Your task to perform on an android device: stop showing notifications on the lock screen Image 0: 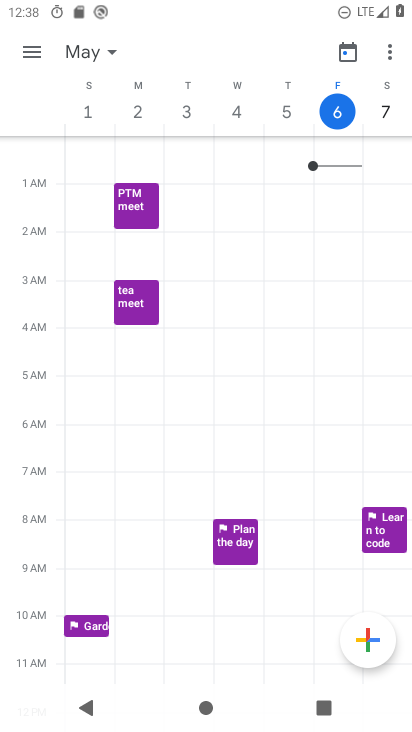
Step 0: press home button
Your task to perform on an android device: stop showing notifications on the lock screen Image 1: 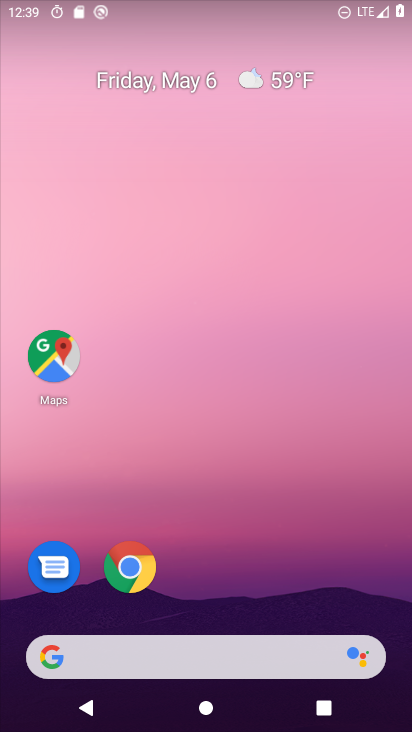
Step 1: drag from (344, 607) to (325, 8)
Your task to perform on an android device: stop showing notifications on the lock screen Image 2: 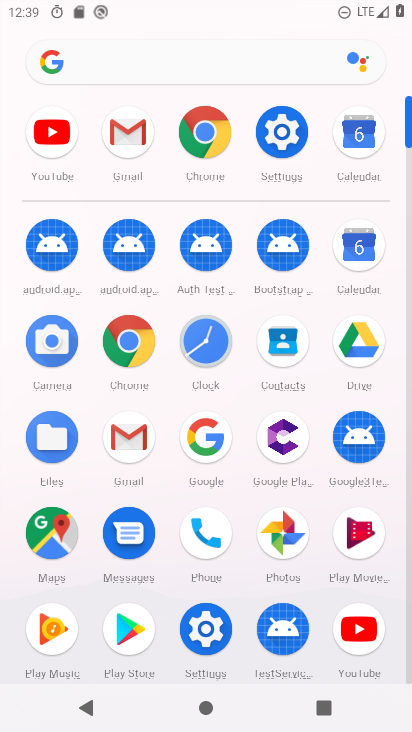
Step 2: click (283, 139)
Your task to perform on an android device: stop showing notifications on the lock screen Image 3: 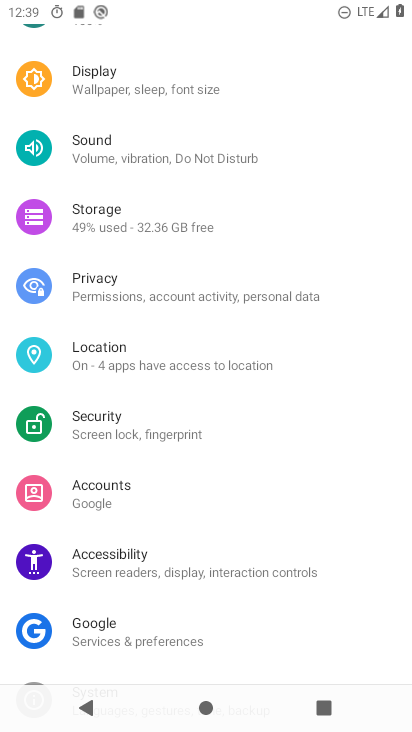
Step 3: drag from (323, 158) to (332, 322)
Your task to perform on an android device: stop showing notifications on the lock screen Image 4: 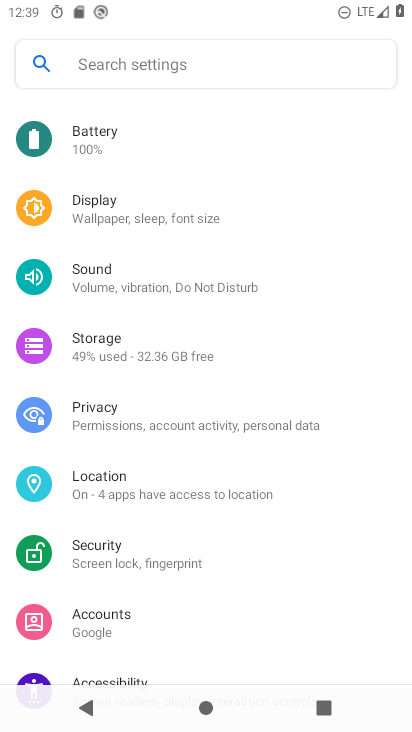
Step 4: drag from (323, 141) to (298, 427)
Your task to perform on an android device: stop showing notifications on the lock screen Image 5: 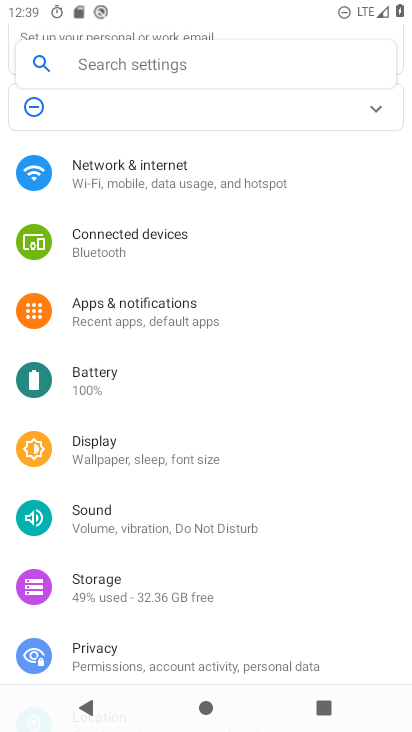
Step 5: click (118, 312)
Your task to perform on an android device: stop showing notifications on the lock screen Image 6: 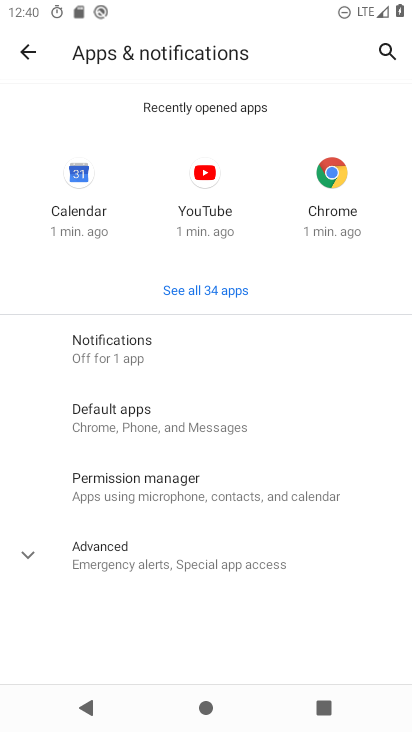
Step 6: click (121, 352)
Your task to perform on an android device: stop showing notifications on the lock screen Image 7: 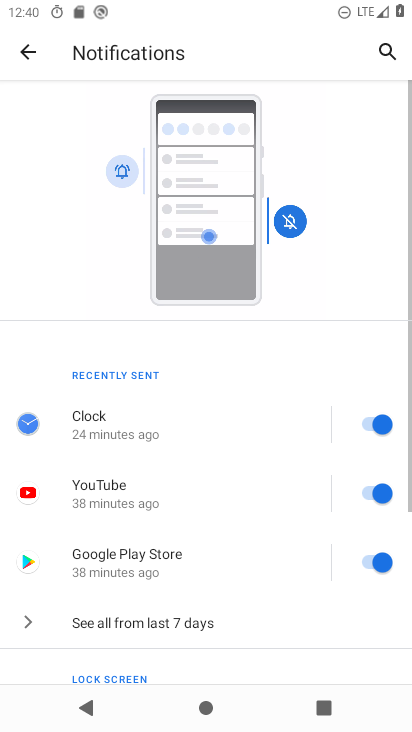
Step 7: drag from (174, 610) to (180, 251)
Your task to perform on an android device: stop showing notifications on the lock screen Image 8: 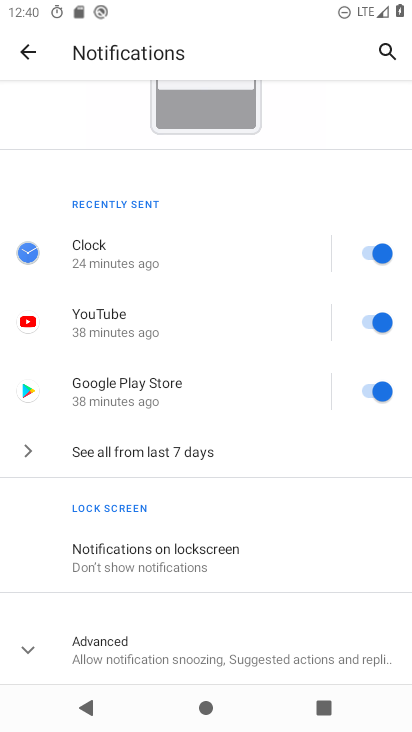
Step 8: click (111, 561)
Your task to perform on an android device: stop showing notifications on the lock screen Image 9: 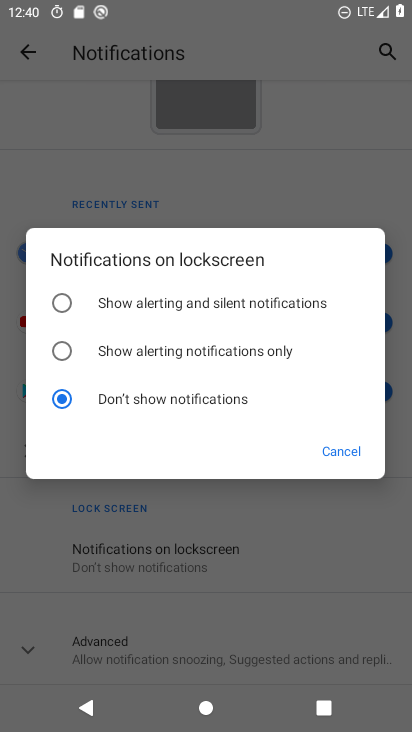
Step 9: task complete